Your task to perform on an android device: Open Android settings Image 0: 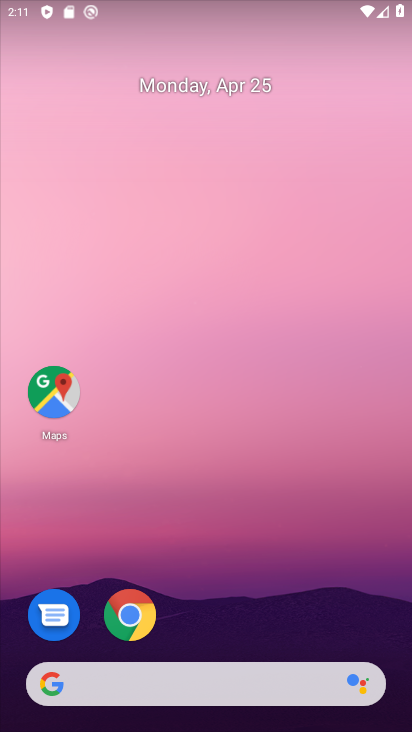
Step 0: drag from (218, 570) to (196, 97)
Your task to perform on an android device: Open Android settings Image 1: 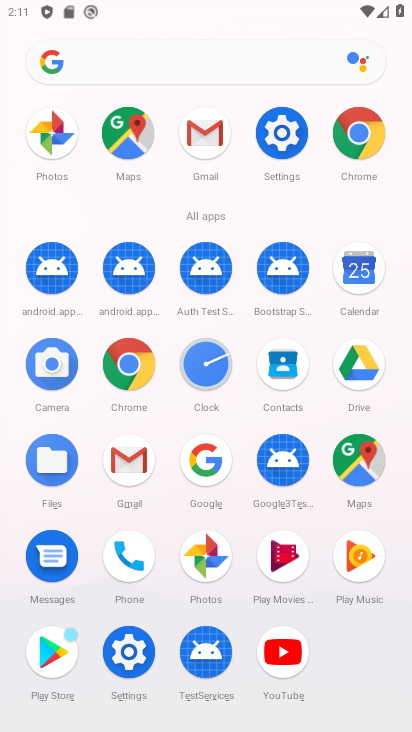
Step 1: click (281, 140)
Your task to perform on an android device: Open Android settings Image 2: 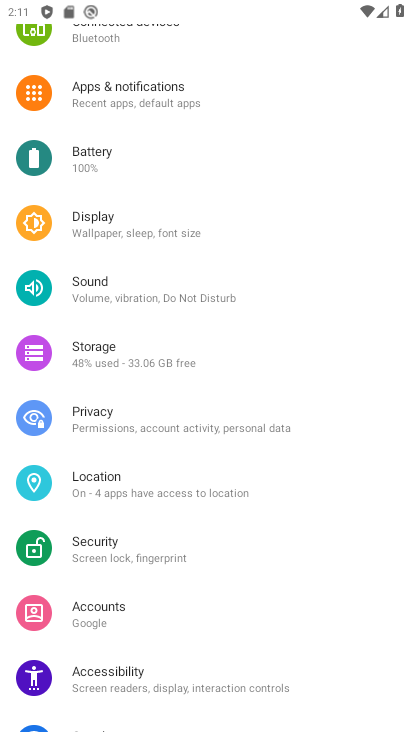
Step 2: drag from (183, 664) to (188, 132)
Your task to perform on an android device: Open Android settings Image 3: 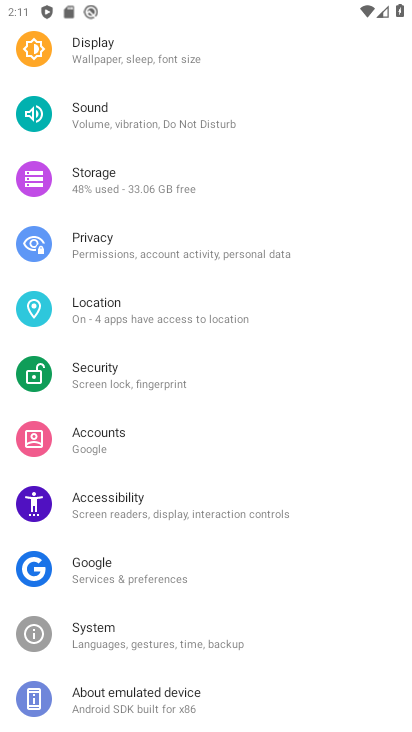
Step 3: click (115, 698)
Your task to perform on an android device: Open Android settings Image 4: 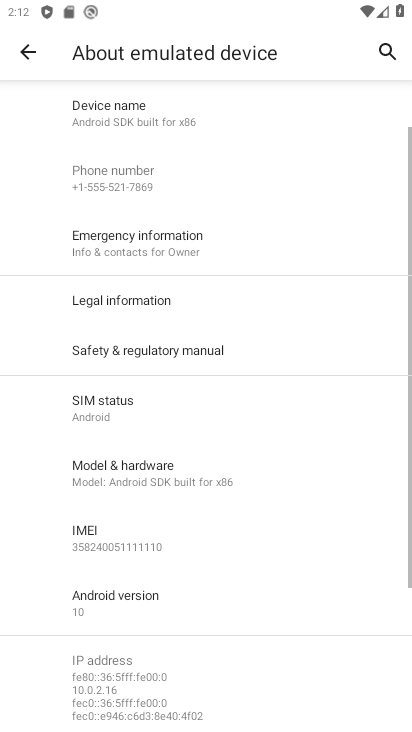
Step 4: click (121, 596)
Your task to perform on an android device: Open Android settings Image 5: 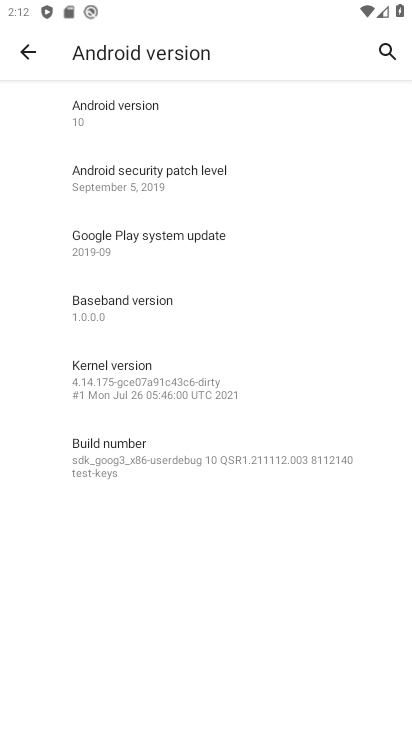
Step 5: task complete